Your task to perform on an android device: toggle translation in the chrome app Image 0: 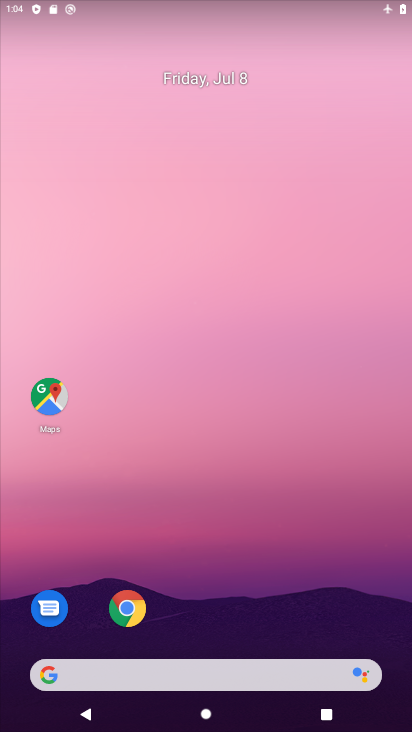
Step 0: click (124, 608)
Your task to perform on an android device: toggle translation in the chrome app Image 1: 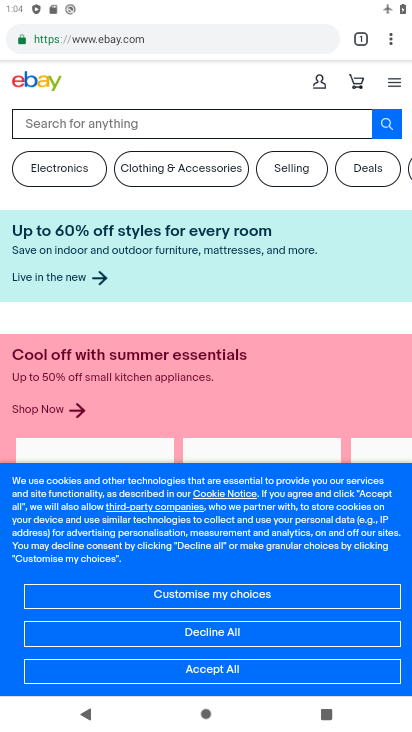
Step 1: click (391, 38)
Your task to perform on an android device: toggle translation in the chrome app Image 2: 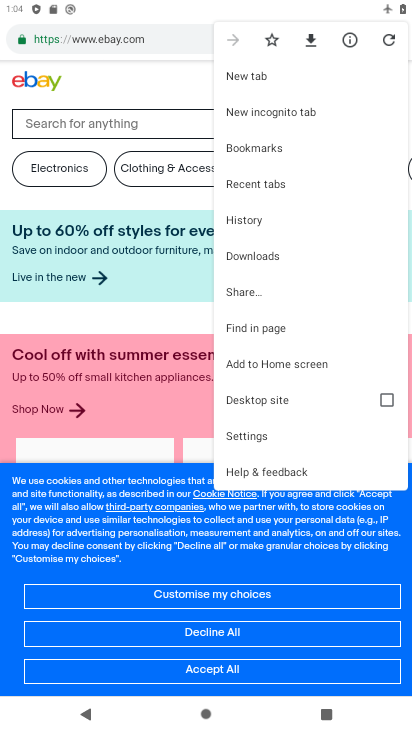
Step 2: click (259, 432)
Your task to perform on an android device: toggle translation in the chrome app Image 3: 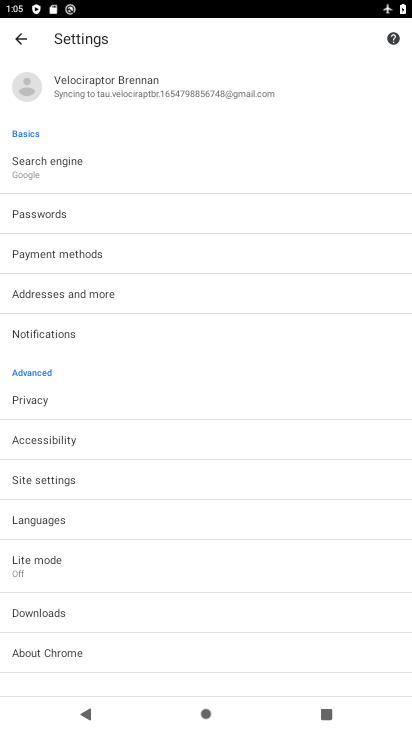
Step 3: click (38, 513)
Your task to perform on an android device: toggle translation in the chrome app Image 4: 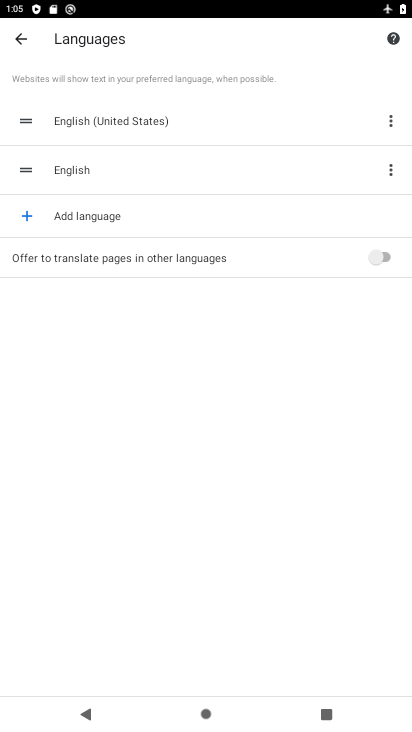
Step 4: click (386, 255)
Your task to perform on an android device: toggle translation in the chrome app Image 5: 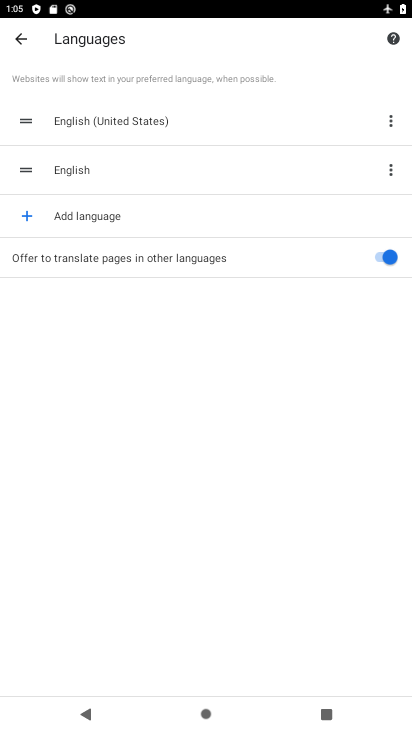
Step 5: task complete